Your task to perform on an android device: Go to battery settings Image 0: 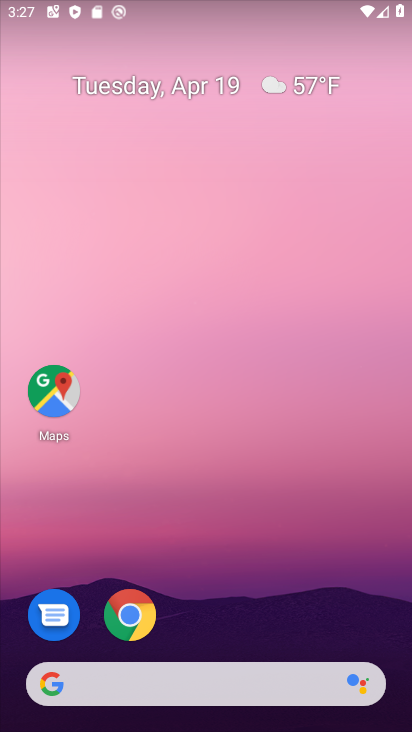
Step 0: drag from (239, 631) to (241, 304)
Your task to perform on an android device: Go to battery settings Image 1: 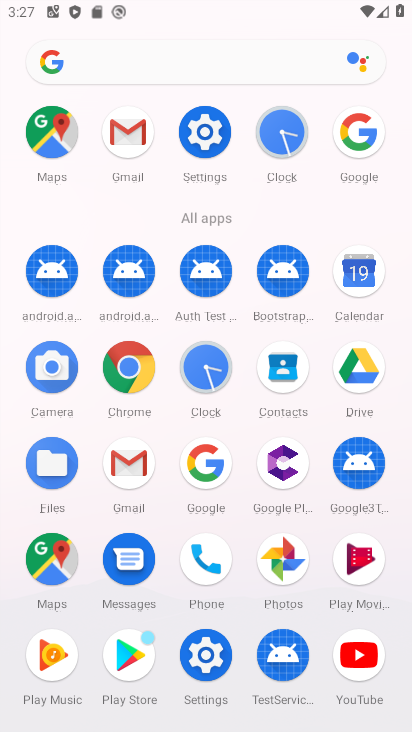
Step 1: click (214, 145)
Your task to perform on an android device: Go to battery settings Image 2: 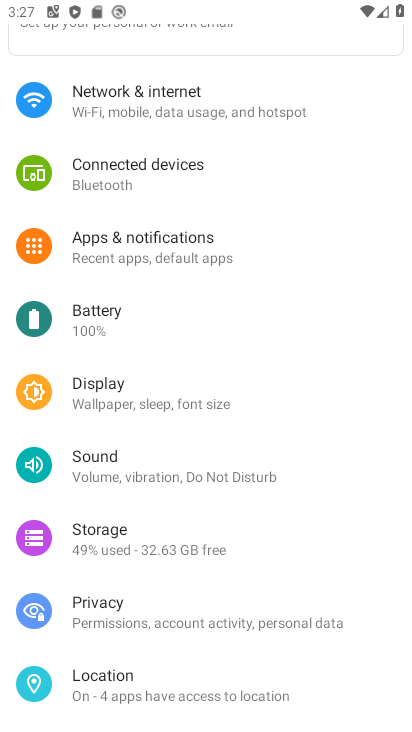
Step 2: click (147, 311)
Your task to perform on an android device: Go to battery settings Image 3: 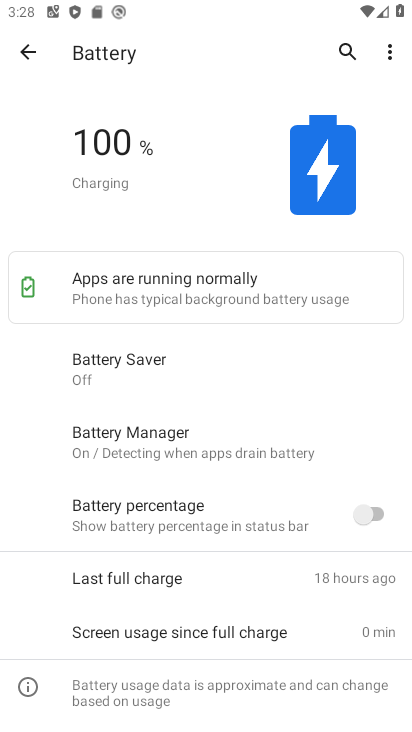
Step 3: task complete